Your task to perform on an android device: move a message to another label in the gmail app Image 0: 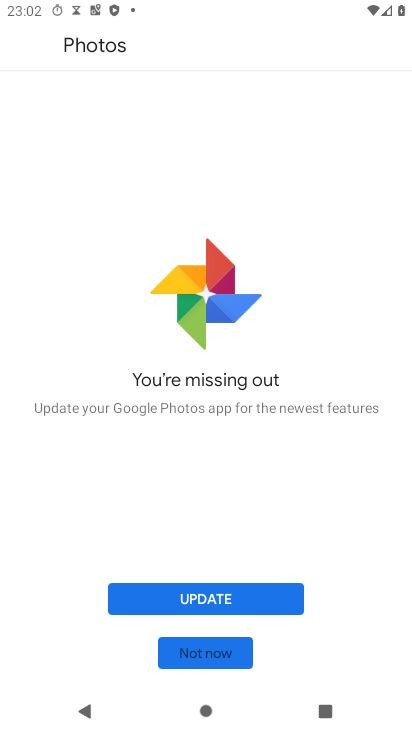
Step 0: press home button
Your task to perform on an android device: move a message to another label in the gmail app Image 1: 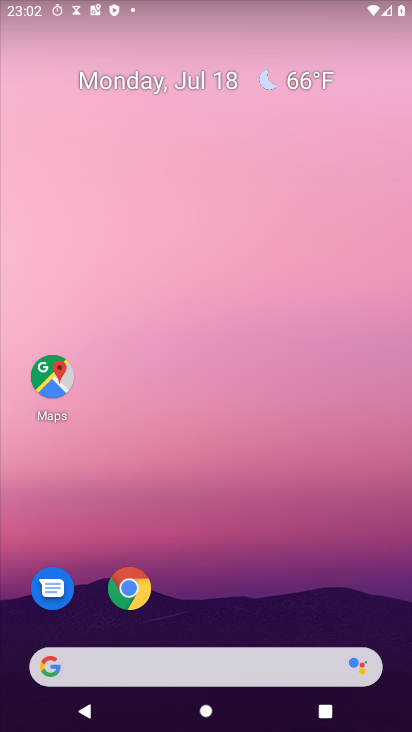
Step 1: drag from (202, 666) to (310, 75)
Your task to perform on an android device: move a message to another label in the gmail app Image 2: 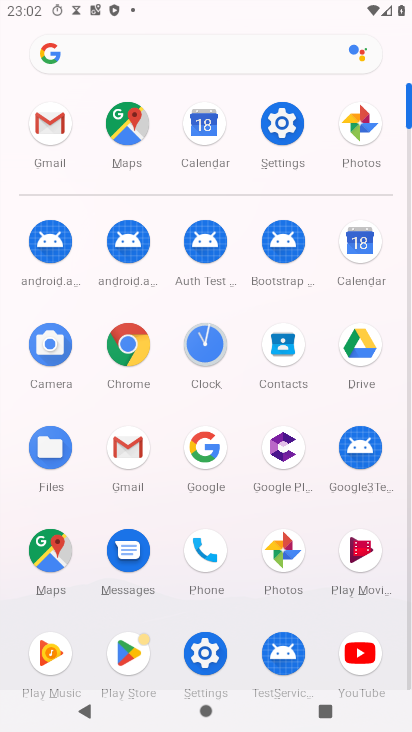
Step 2: click (49, 124)
Your task to perform on an android device: move a message to another label in the gmail app Image 3: 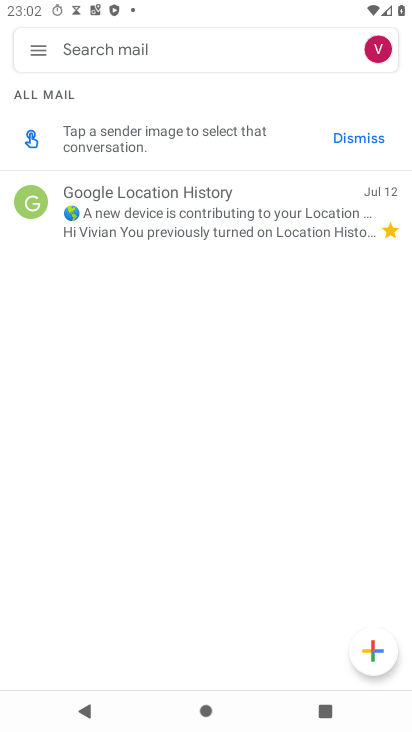
Step 3: click (42, 50)
Your task to perform on an android device: move a message to another label in the gmail app Image 4: 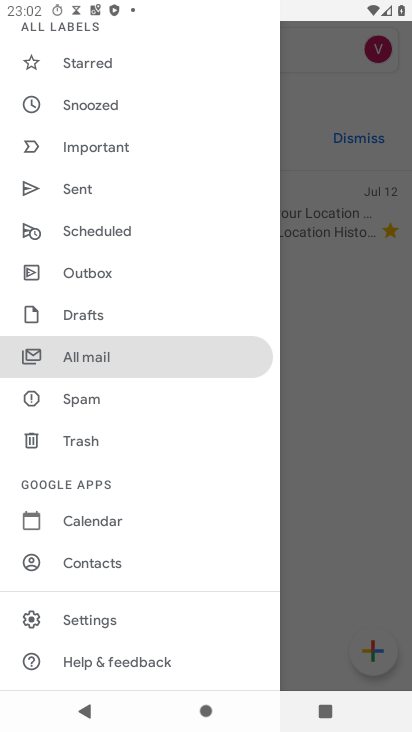
Step 4: click (119, 438)
Your task to perform on an android device: move a message to another label in the gmail app Image 5: 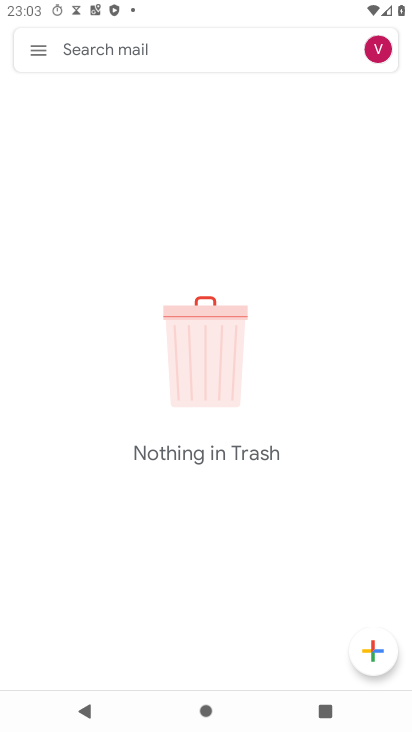
Step 5: click (42, 55)
Your task to perform on an android device: move a message to another label in the gmail app Image 6: 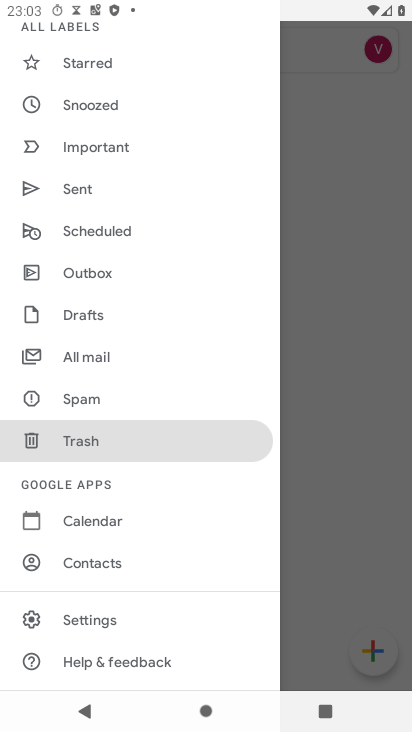
Step 6: click (105, 349)
Your task to perform on an android device: move a message to another label in the gmail app Image 7: 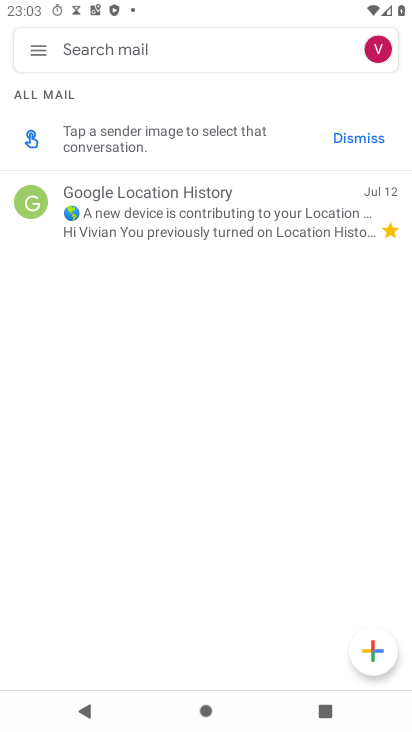
Step 7: click (158, 227)
Your task to perform on an android device: move a message to another label in the gmail app Image 8: 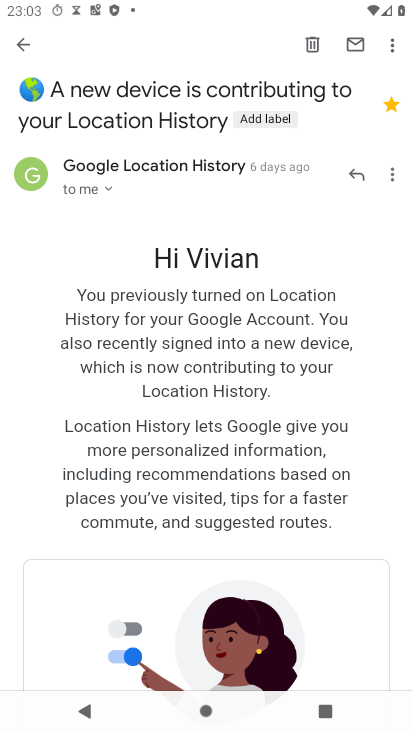
Step 8: click (273, 112)
Your task to perform on an android device: move a message to another label in the gmail app Image 9: 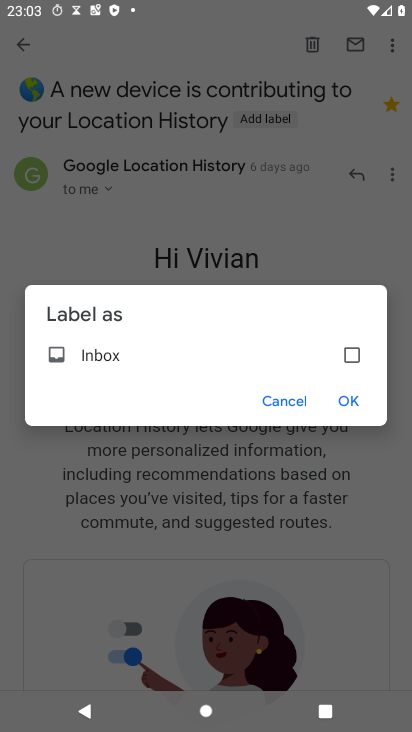
Step 9: click (349, 351)
Your task to perform on an android device: move a message to another label in the gmail app Image 10: 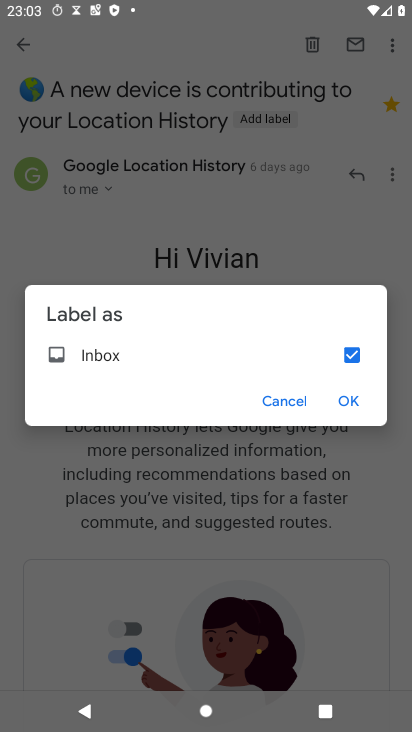
Step 10: click (345, 396)
Your task to perform on an android device: move a message to another label in the gmail app Image 11: 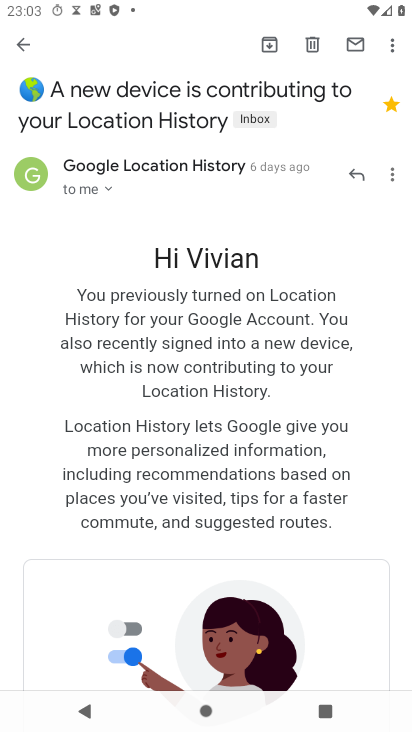
Step 11: task complete